Your task to perform on an android device: Go to display settings Image 0: 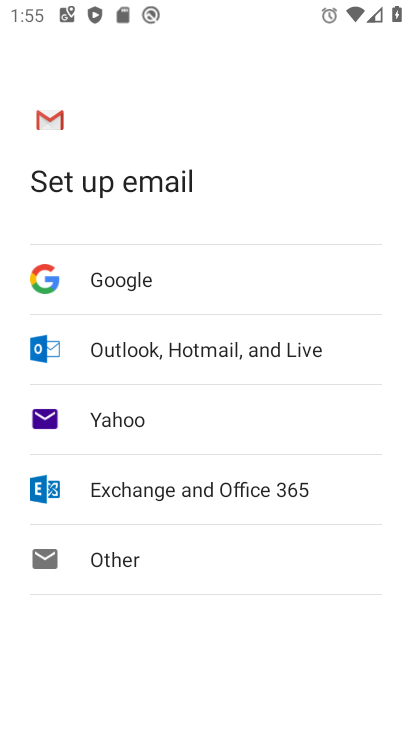
Step 0: press home button
Your task to perform on an android device: Go to display settings Image 1: 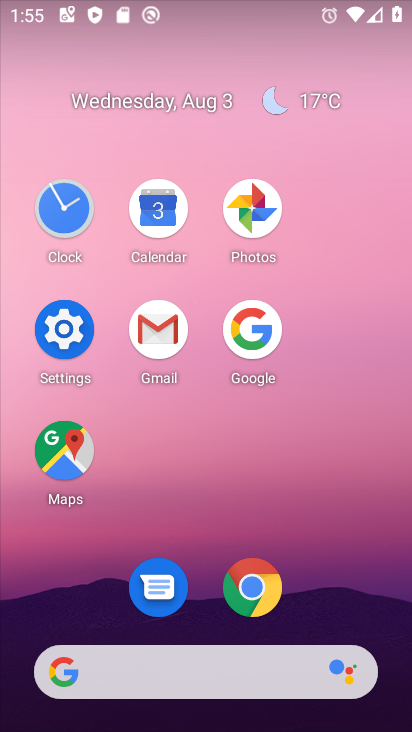
Step 1: click (89, 309)
Your task to perform on an android device: Go to display settings Image 2: 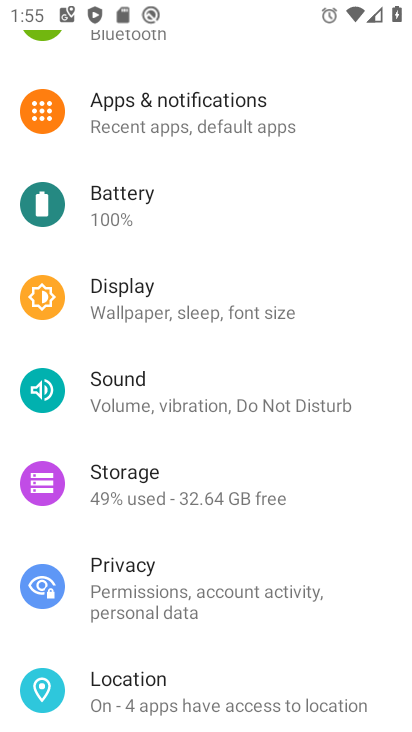
Step 2: click (194, 317)
Your task to perform on an android device: Go to display settings Image 3: 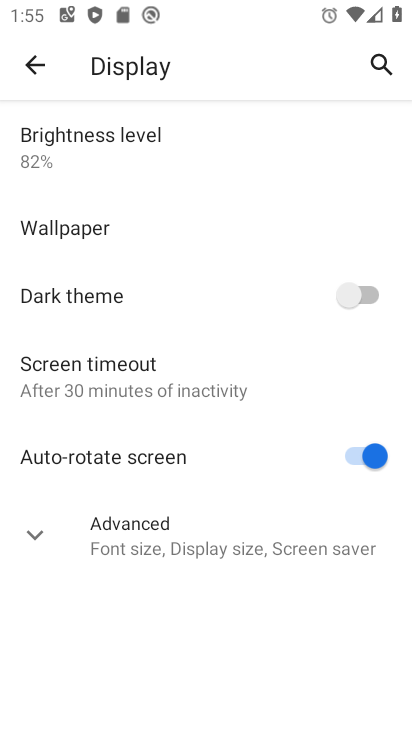
Step 3: task complete